Your task to perform on an android device: Find coffee shops on Maps Image 0: 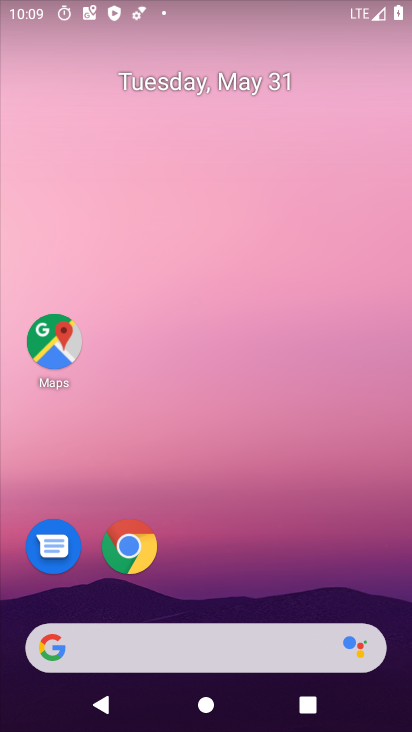
Step 0: click (61, 346)
Your task to perform on an android device: Find coffee shops on Maps Image 1: 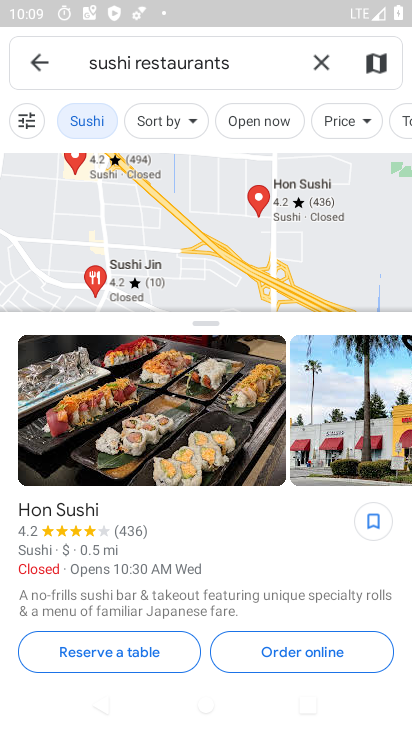
Step 1: click (324, 51)
Your task to perform on an android device: Find coffee shops on Maps Image 2: 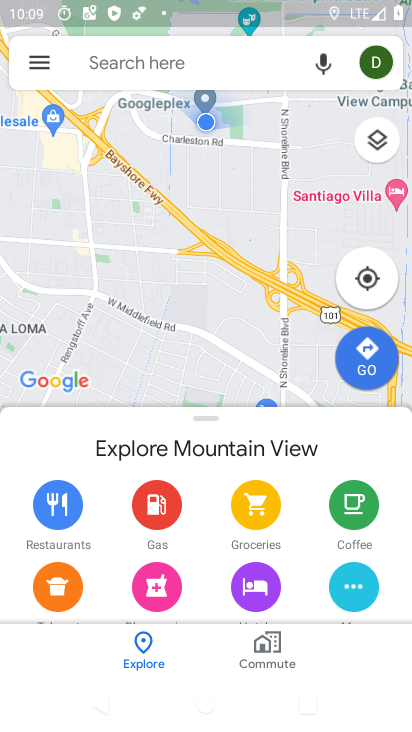
Step 2: click (261, 49)
Your task to perform on an android device: Find coffee shops on Maps Image 3: 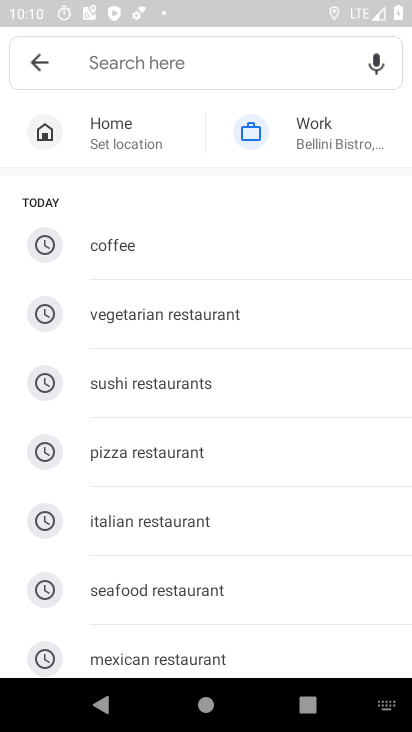
Step 3: type "coffee shops"
Your task to perform on an android device: Find coffee shops on Maps Image 4: 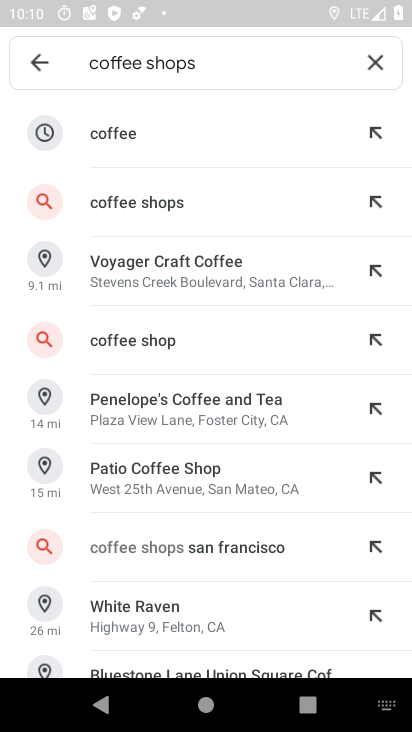
Step 4: click (296, 179)
Your task to perform on an android device: Find coffee shops on Maps Image 5: 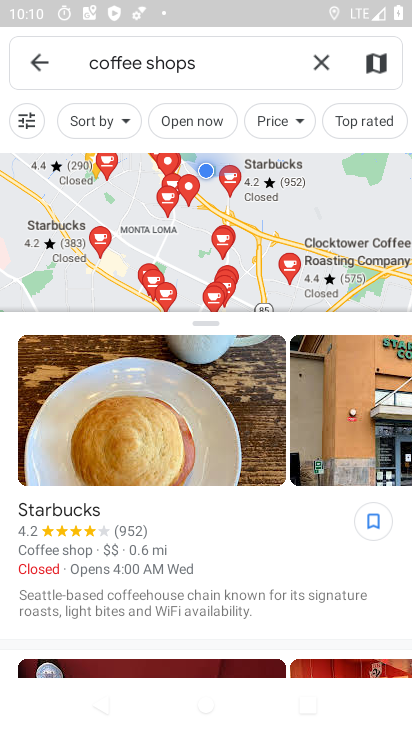
Step 5: task complete